Your task to perform on an android device: Open Google Maps Image 0: 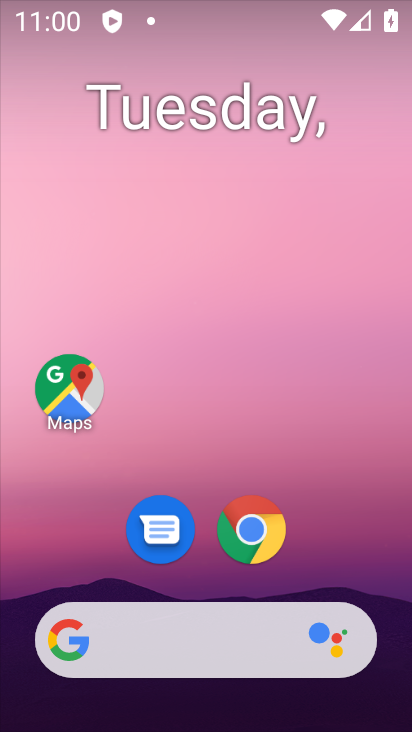
Step 0: click (80, 396)
Your task to perform on an android device: Open Google Maps Image 1: 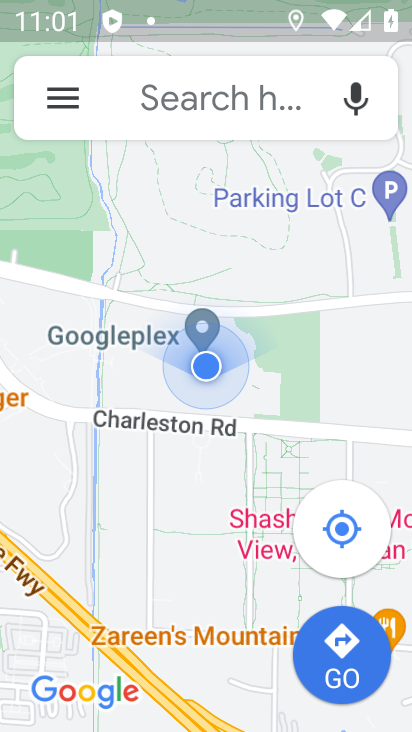
Step 1: task complete